Your task to perform on an android device: turn off javascript in the chrome app Image 0: 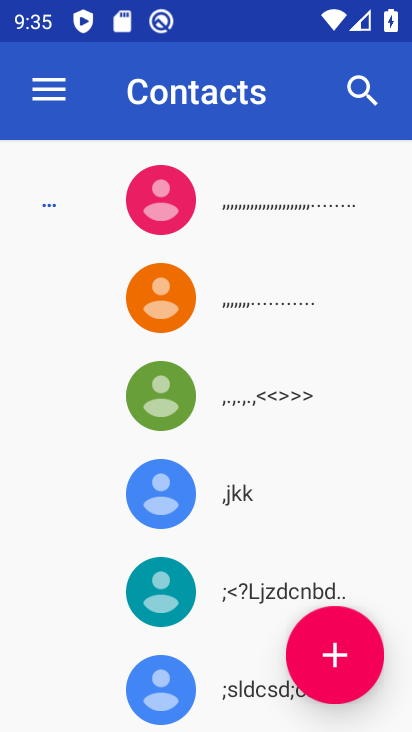
Step 0: press home button
Your task to perform on an android device: turn off javascript in the chrome app Image 1: 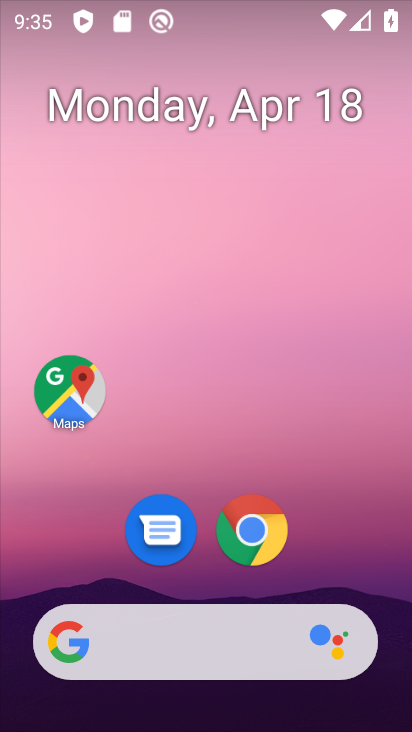
Step 1: click (259, 530)
Your task to perform on an android device: turn off javascript in the chrome app Image 2: 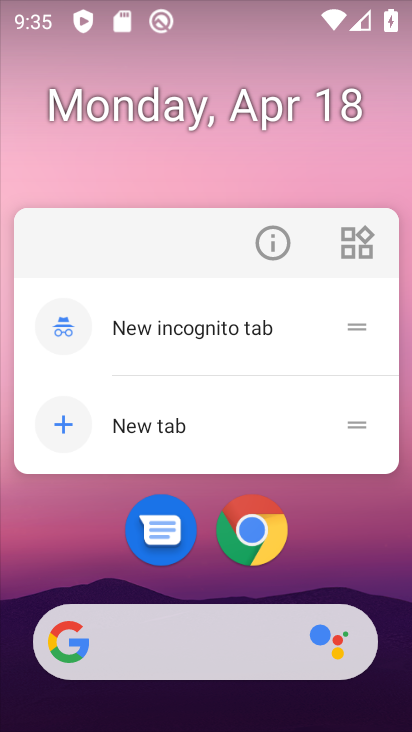
Step 2: click (251, 532)
Your task to perform on an android device: turn off javascript in the chrome app Image 3: 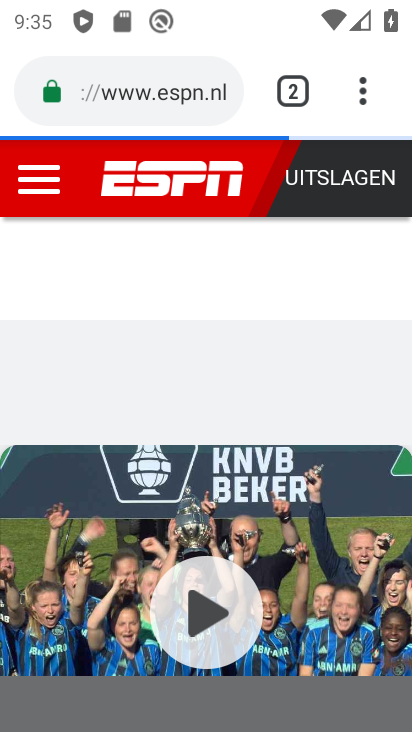
Step 3: click (363, 87)
Your task to perform on an android device: turn off javascript in the chrome app Image 4: 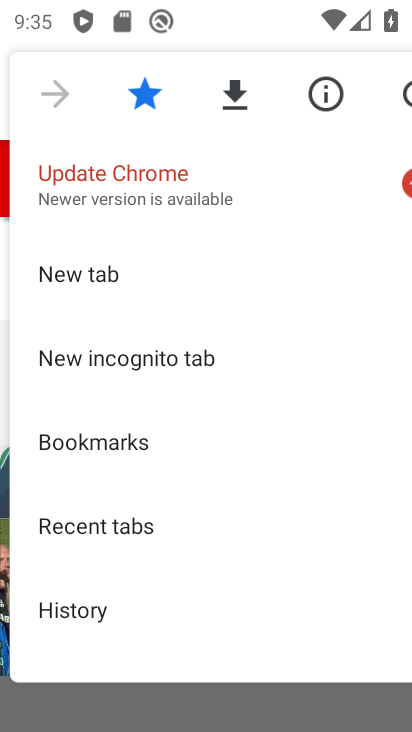
Step 4: drag from (200, 510) to (233, 273)
Your task to perform on an android device: turn off javascript in the chrome app Image 5: 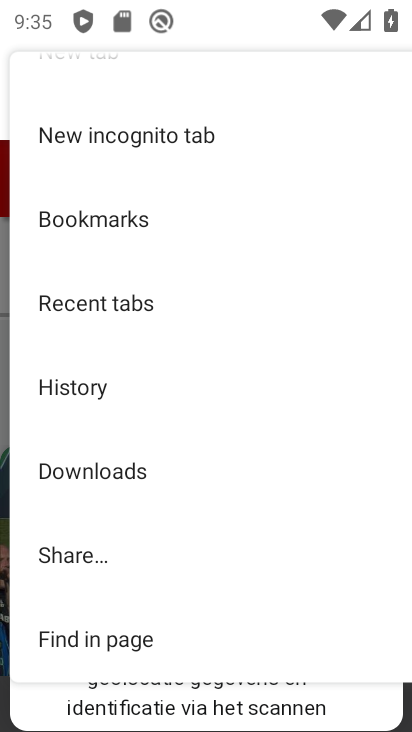
Step 5: drag from (205, 540) to (209, 200)
Your task to perform on an android device: turn off javascript in the chrome app Image 6: 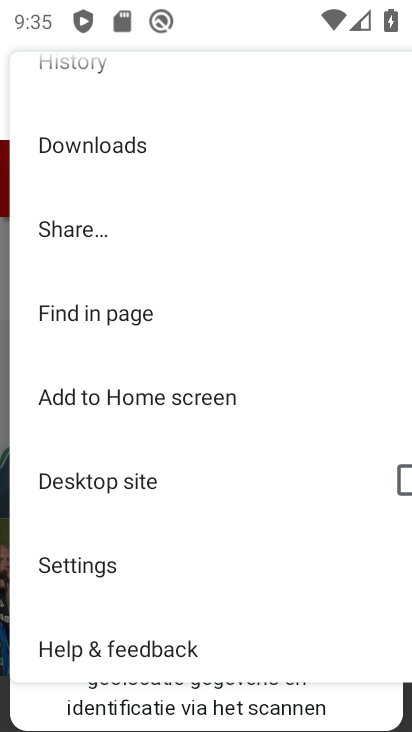
Step 6: click (107, 570)
Your task to perform on an android device: turn off javascript in the chrome app Image 7: 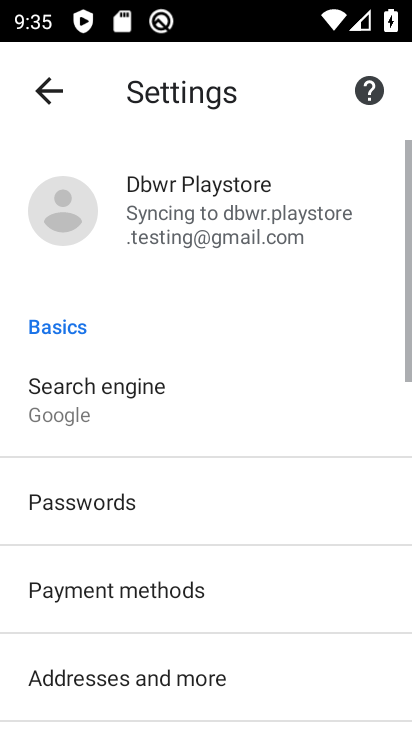
Step 7: drag from (291, 597) to (321, 215)
Your task to perform on an android device: turn off javascript in the chrome app Image 8: 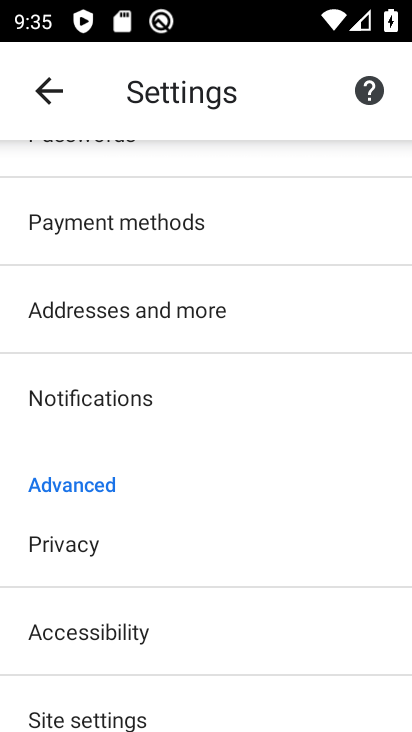
Step 8: drag from (202, 513) to (219, 220)
Your task to perform on an android device: turn off javascript in the chrome app Image 9: 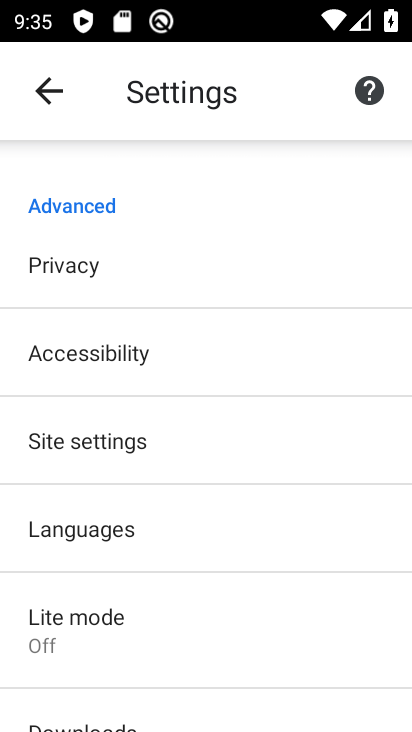
Step 9: click (58, 439)
Your task to perform on an android device: turn off javascript in the chrome app Image 10: 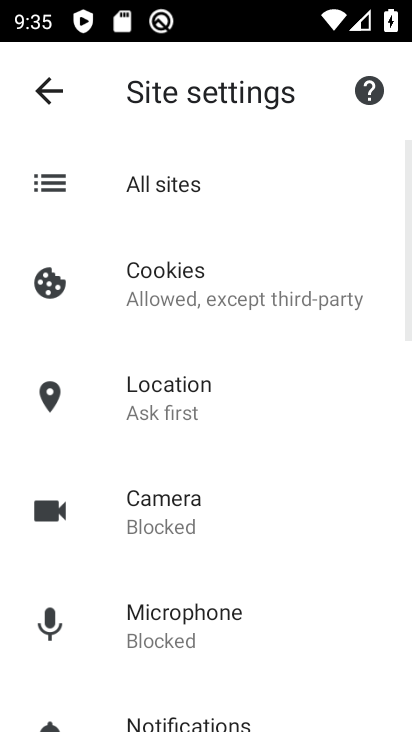
Step 10: drag from (391, 545) to (390, 279)
Your task to perform on an android device: turn off javascript in the chrome app Image 11: 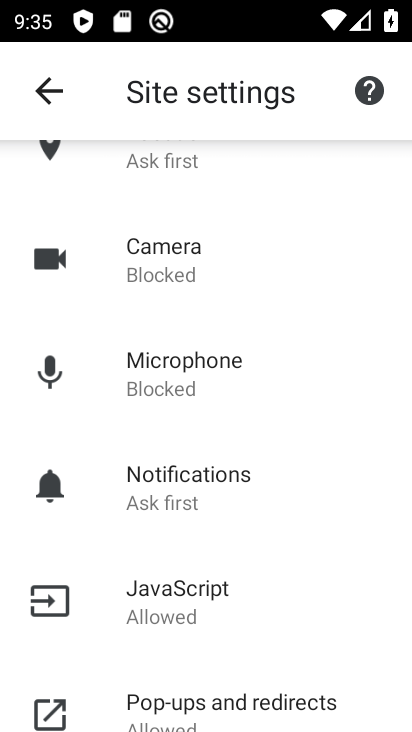
Step 11: click (173, 599)
Your task to perform on an android device: turn off javascript in the chrome app Image 12: 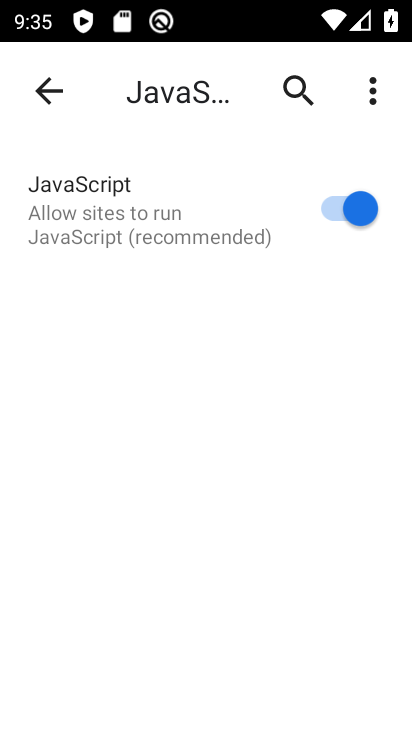
Step 12: click (362, 206)
Your task to perform on an android device: turn off javascript in the chrome app Image 13: 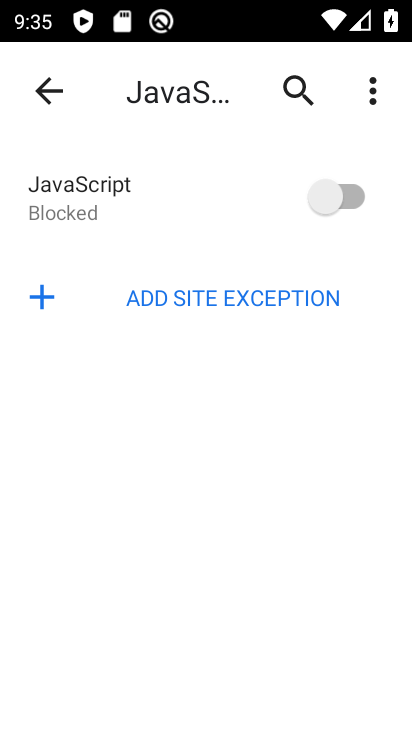
Step 13: task complete